Your task to perform on an android device: toggle javascript in the chrome app Image 0: 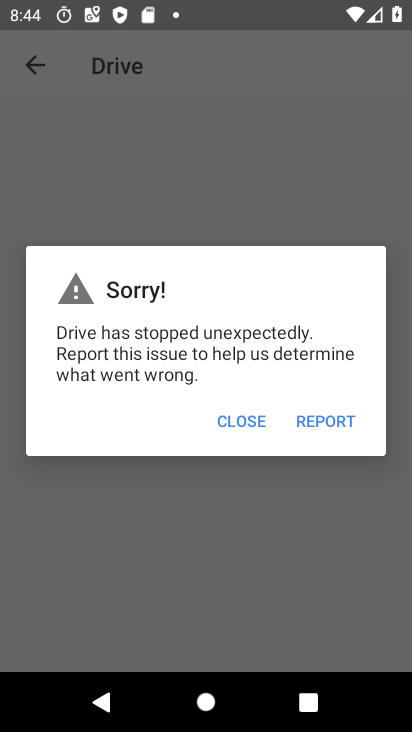
Step 0: press home button
Your task to perform on an android device: toggle javascript in the chrome app Image 1: 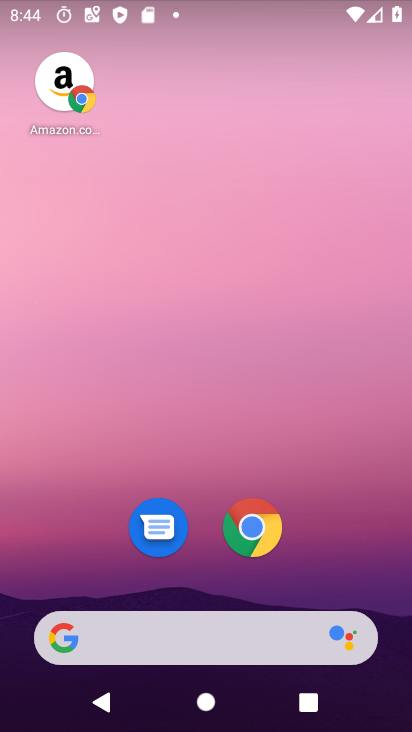
Step 1: drag from (358, 519) to (295, 6)
Your task to perform on an android device: toggle javascript in the chrome app Image 2: 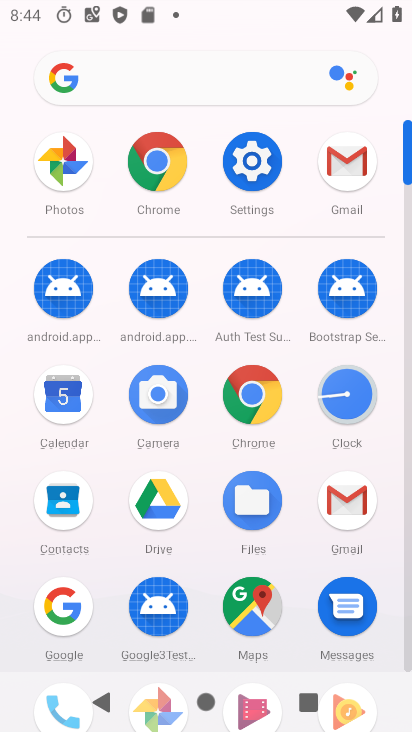
Step 2: click (167, 151)
Your task to perform on an android device: toggle javascript in the chrome app Image 3: 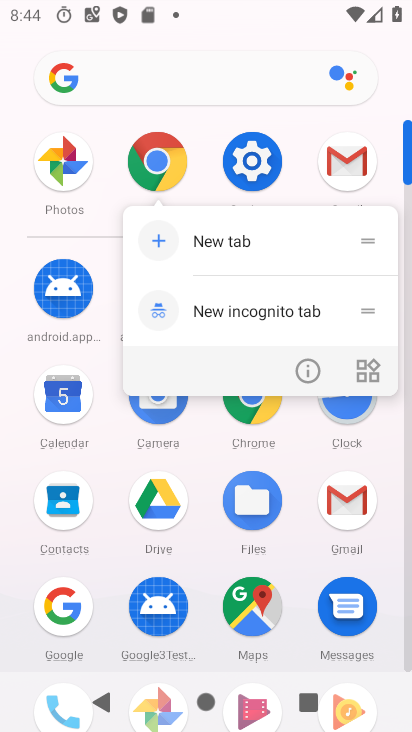
Step 3: click (167, 151)
Your task to perform on an android device: toggle javascript in the chrome app Image 4: 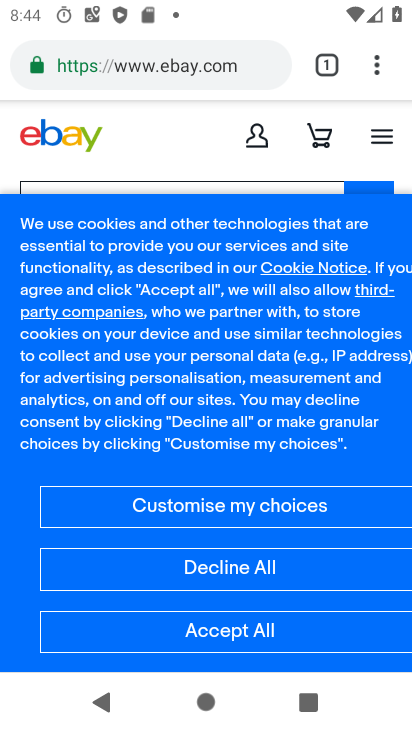
Step 4: drag from (386, 68) to (174, 550)
Your task to perform on an android device: toggle javascript in the chrome app Image 5: 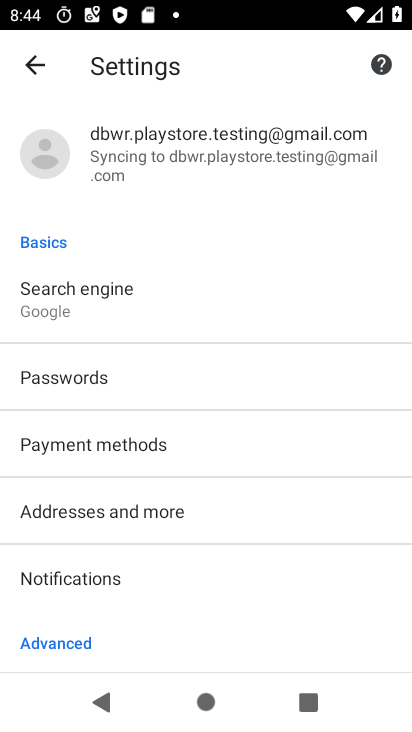
Step 5: drag from (173, 547) to (142, 158)
Your task to perform on an android device: toggle javascript in the chrome app Image 6: 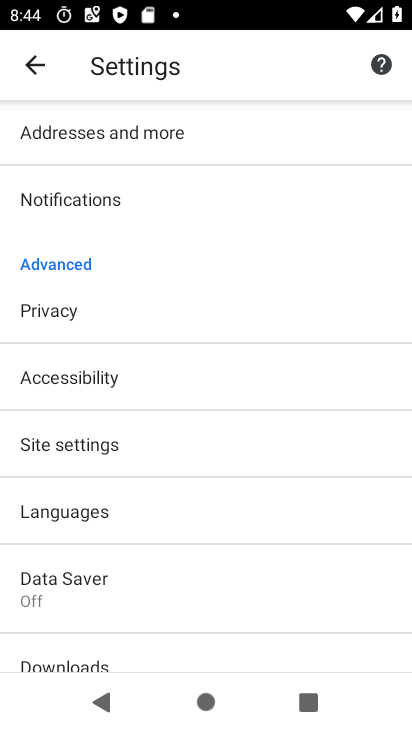
Step 6: click (76, 447)
Your task to perform on an android device: toggle javascript in the chrome app Image 7: 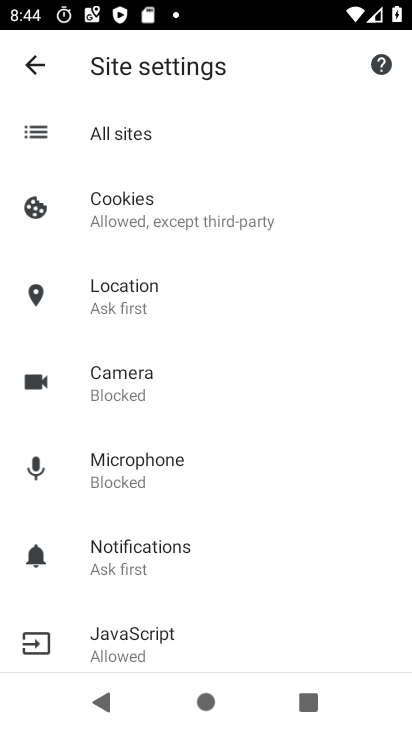
Step 7: click (127, 641)
Your task to perform on an android device: toggle javascript in the chrome app Image 8: 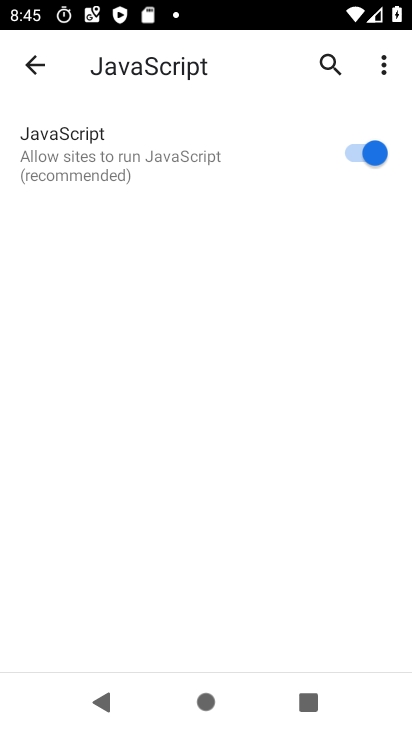
Step 8: click (364, 155)
Your task to perform on an android device: toggle javascript in the chrome app Image 9: 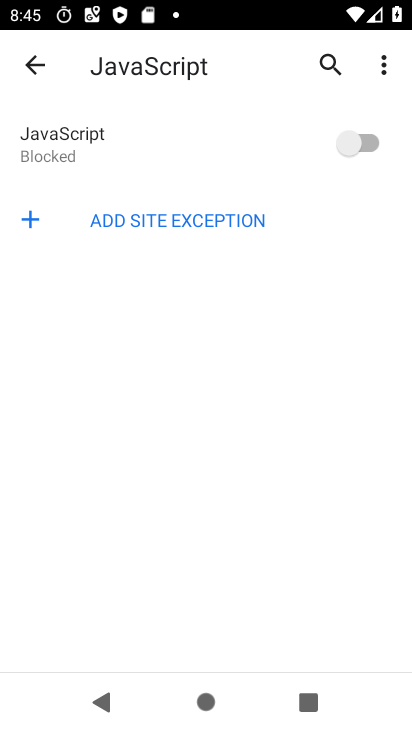
Step 9: task complete